Your task to perform on an android device: What is the news today? Image 0: 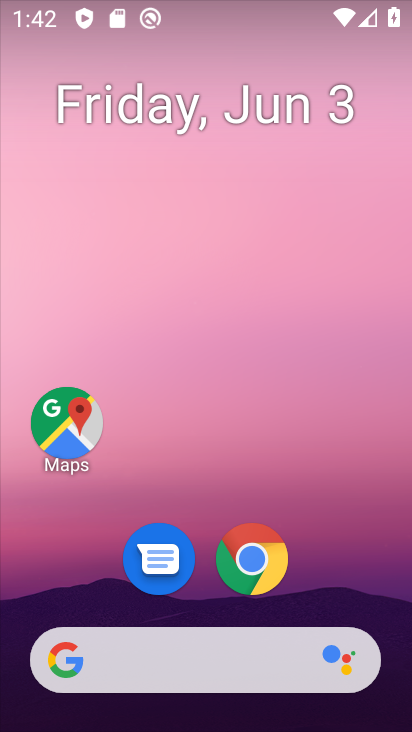
Step 0: drag from (346, 566) to (364, 151)
Your task to perform on an android device: What is the news today? Image 1: 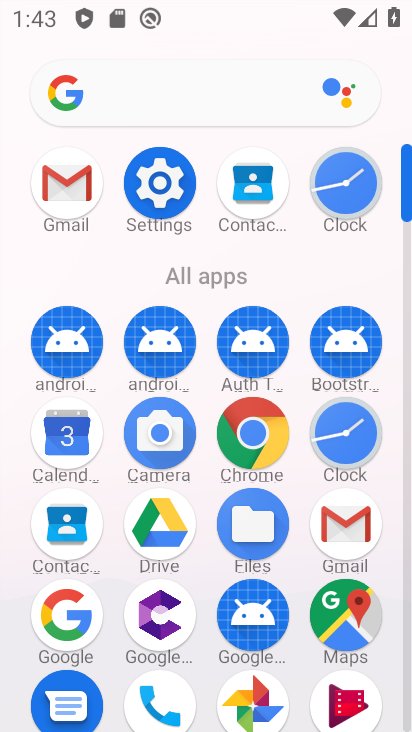
Step 1: task complete